Your task to perform on an android device: Empty the shopping cart on target. Search for "energizer triple a" on target, select the first entry, and add it to the cart. Image 0: 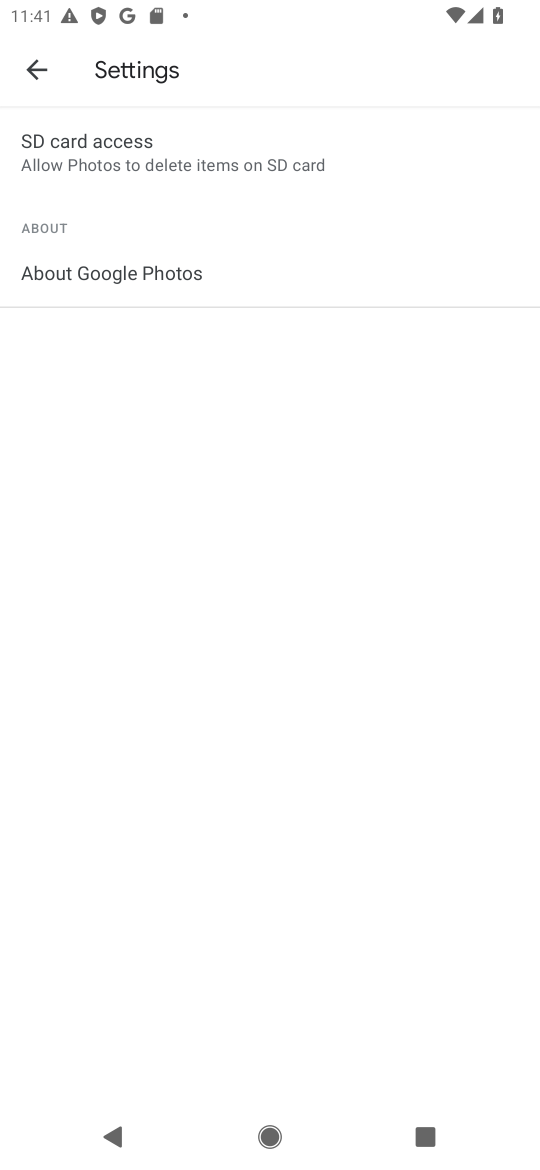
Step 0: press home button
Your task to perform on an android device: Empty the shopping cart on target. Search for "energizer triple a" on target, select the first entry, and add it to the cart. Image 1: 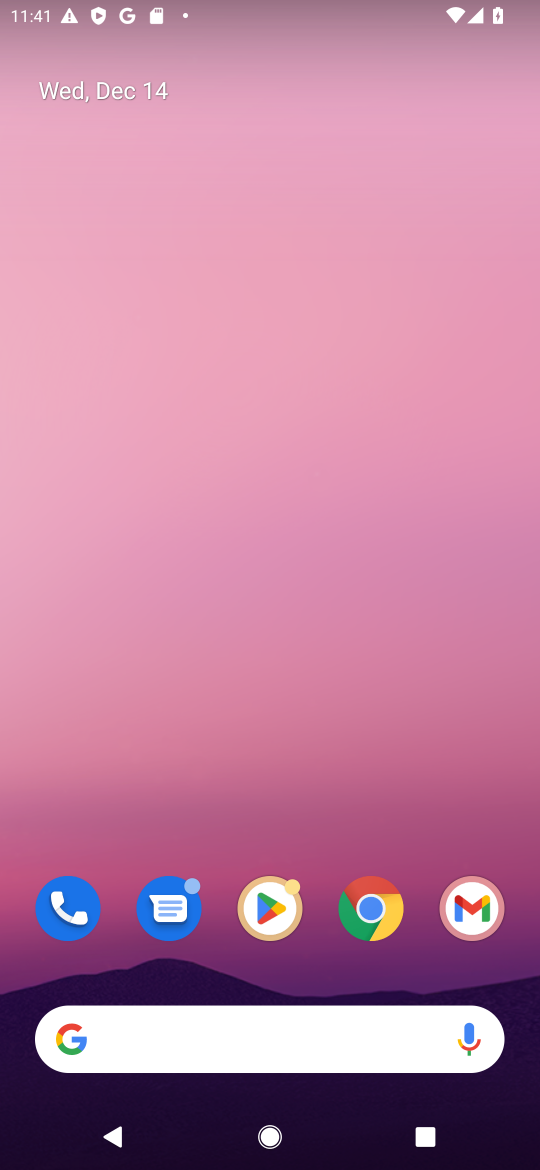
Step 1: click (374, 892)
Your task to perform on an android device: Empty the shopping cart on target. Search for "energizer triple a" on target, select the first entry, and add it to the cart. Image 2: 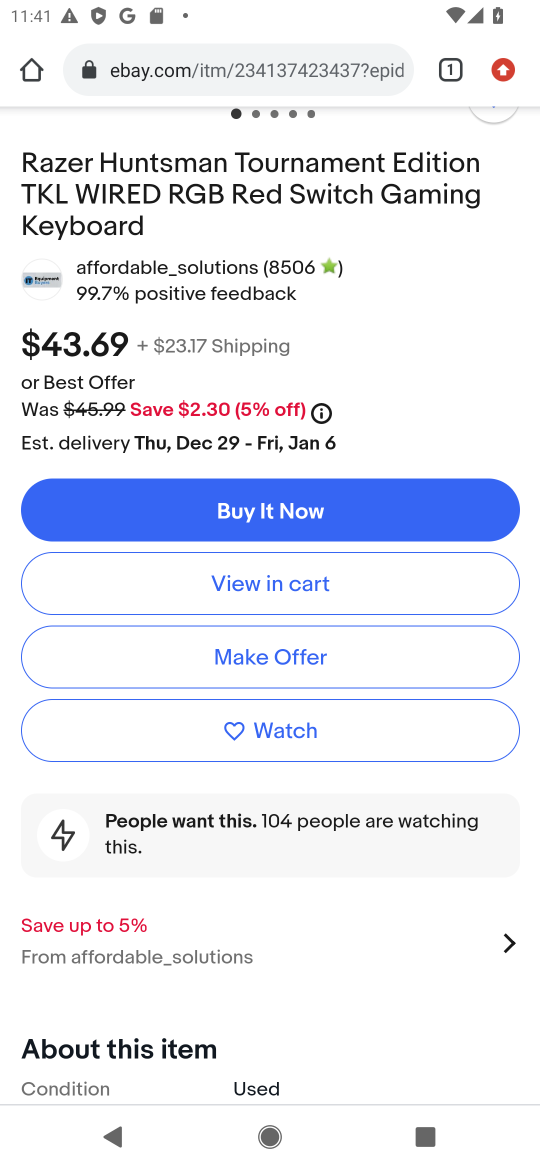
Step 2: click (197, 91)
Your task to perform on an android device: Empty the shopping cart on target. Search for "energizer triple a" on target, select the first entry, and add it to the cart. Image 3: 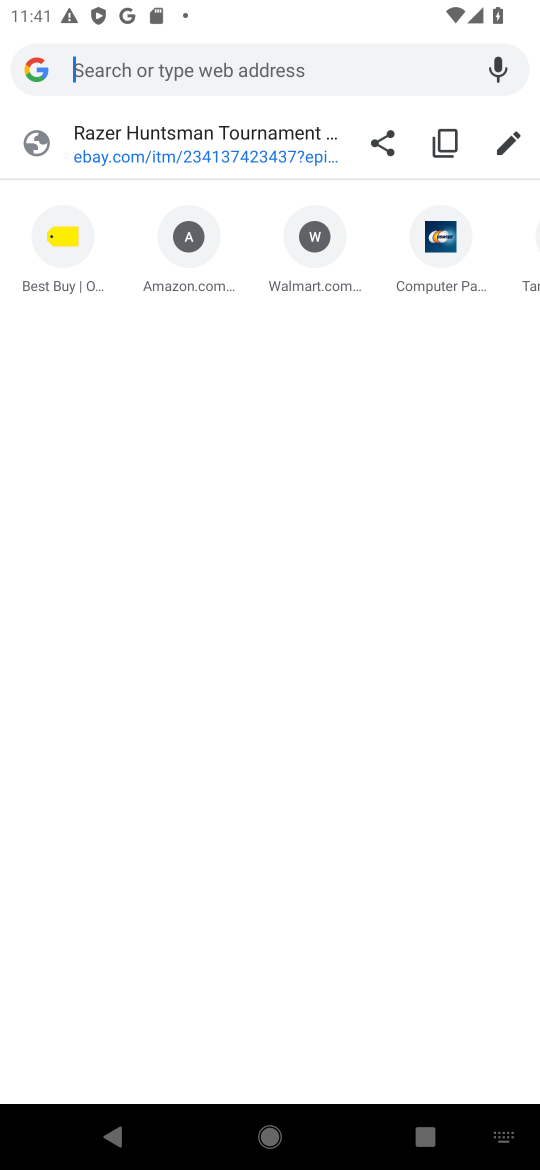
Step 3: type "target"
Your task to perform on an android device: Empty the shopping cart on target. Search for "energizer triple a" on target, select the first entry, and add it to the cart. Image 4: 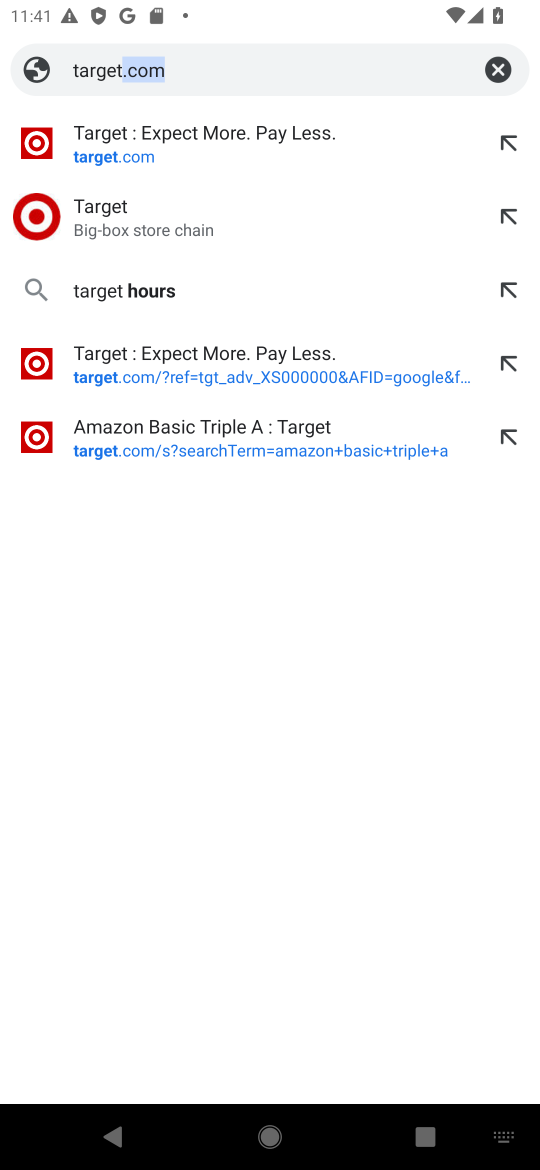
Step 4: click (127, 128)
Your task to perform on an android device: Empty the shopping cart on target. Search for "energizer triple a" on target, select the first entry, and add it to the cart. Image 5: 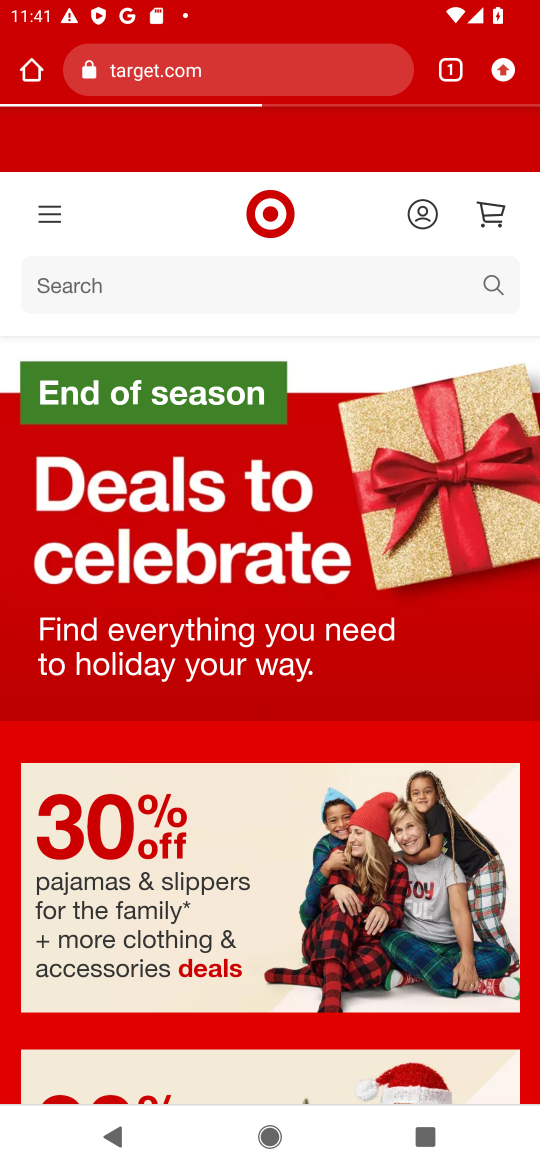
Step 5: drag from (287, 703) to (288, 516)
Your task to perform on an android device: Empty the shopping cart on target. Search for "energizer triple a" on target, select the first entry, and add it to the cart. Image 6: 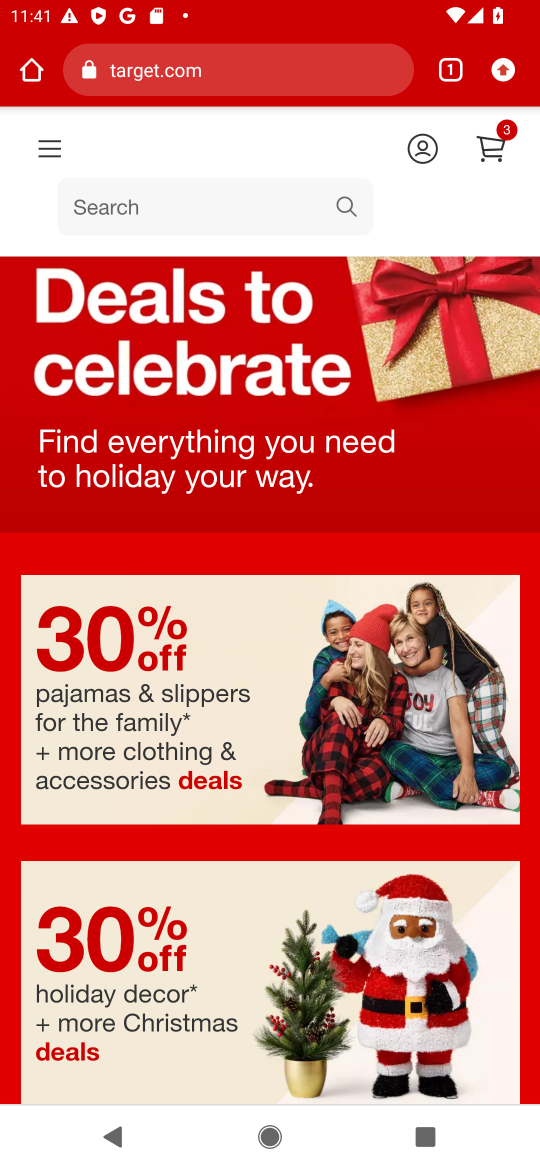
Step 6: drag from (138, 287) to (149, 809)
Your task to perform on an android device: Empty the shopping cart on target. Search for "energizer triple a" on target, select the first entry, and add it to the cart. Image 7: 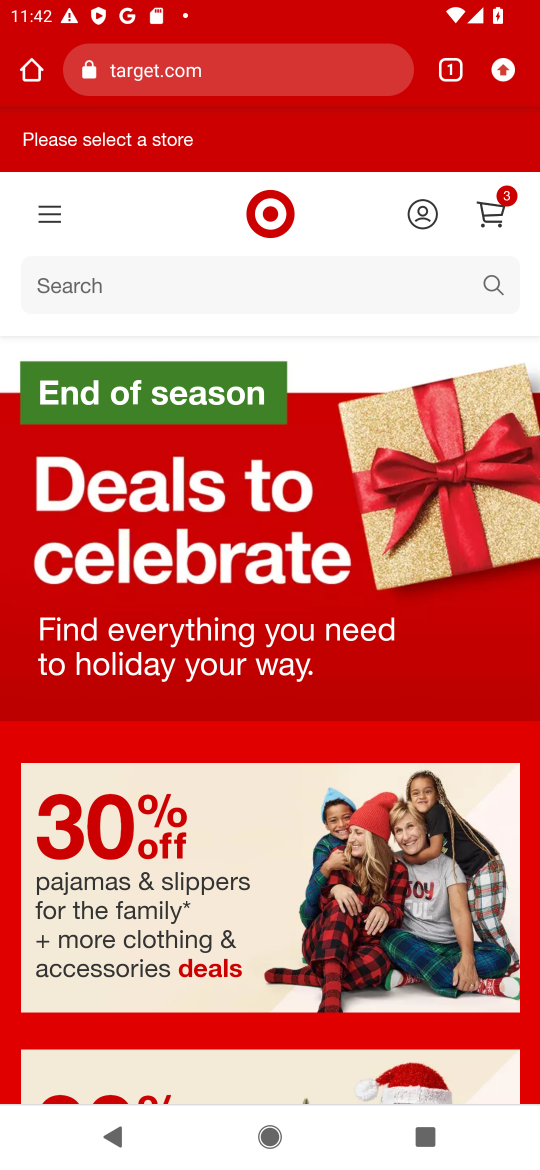
Step 7: click (56, 281)
Your task to perform on an android device: Empty the shopping cart on target. Search for "energizer triple a" on target, select the first entry, and add it to the cart. Image 8: 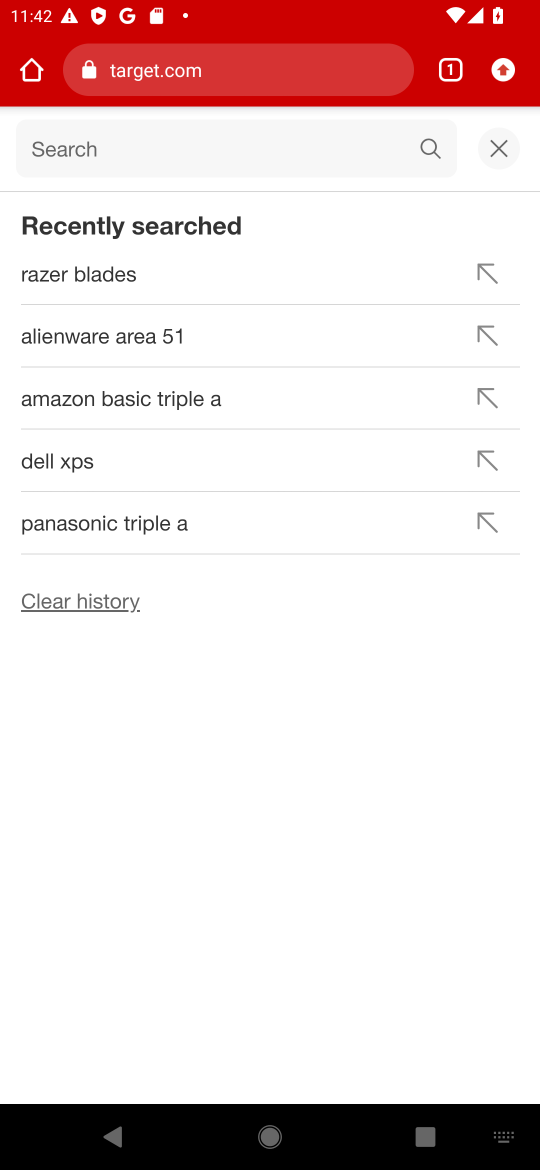
Step 8: type "target"
Your task to perform on an android device: Empty the shopping cart on target. Search for "energizer triple a" on target, select the first entry, and add it to the cart. Image 9: 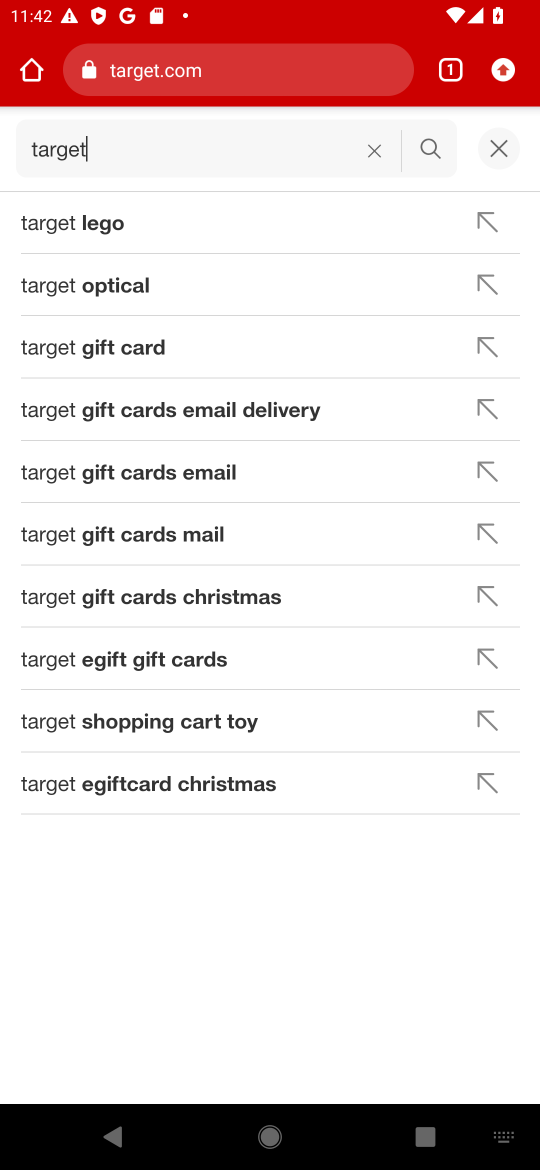
Step 9: click (370, 154)
Your task to perform on an android device: Empty the shopping cart on target. Search for "energizer triple a" on target, select the first entry, and add it to the cart. Image 10: 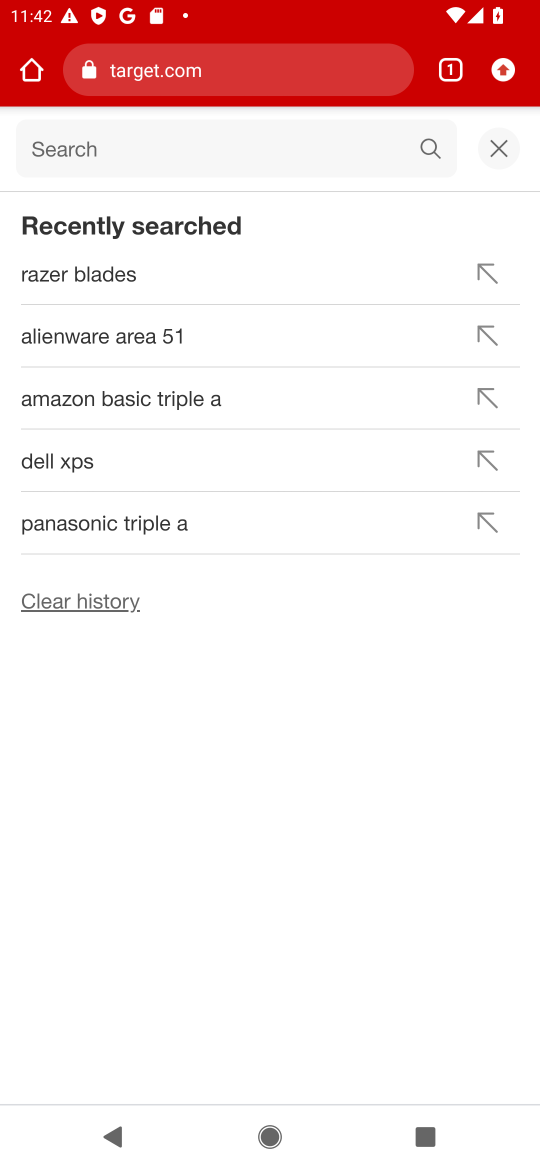
Step 10: type "energizer triple a"
Your task to perform on an android device: Empty the shopping cart on target. Search for "energizer triple a" on target, select the first entry, and add it to the cart. Image 11: 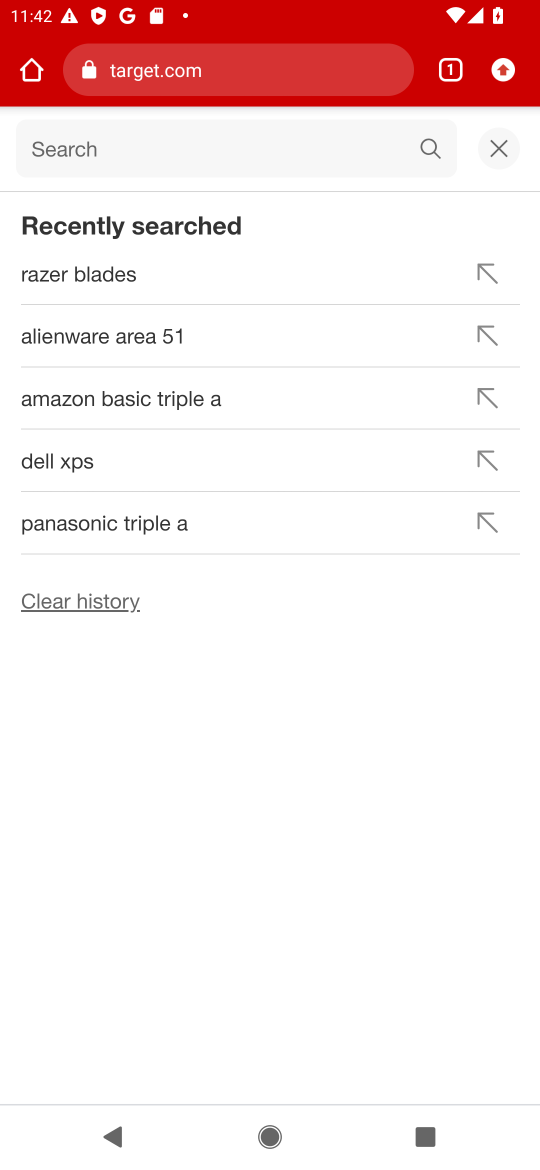
Step 11: click (96, 832)
Your task to perform on an android device: Empty the shopping cart on target. Search for "energizer triple a" on target, select the first entry, and add it to the cart. Image 12: 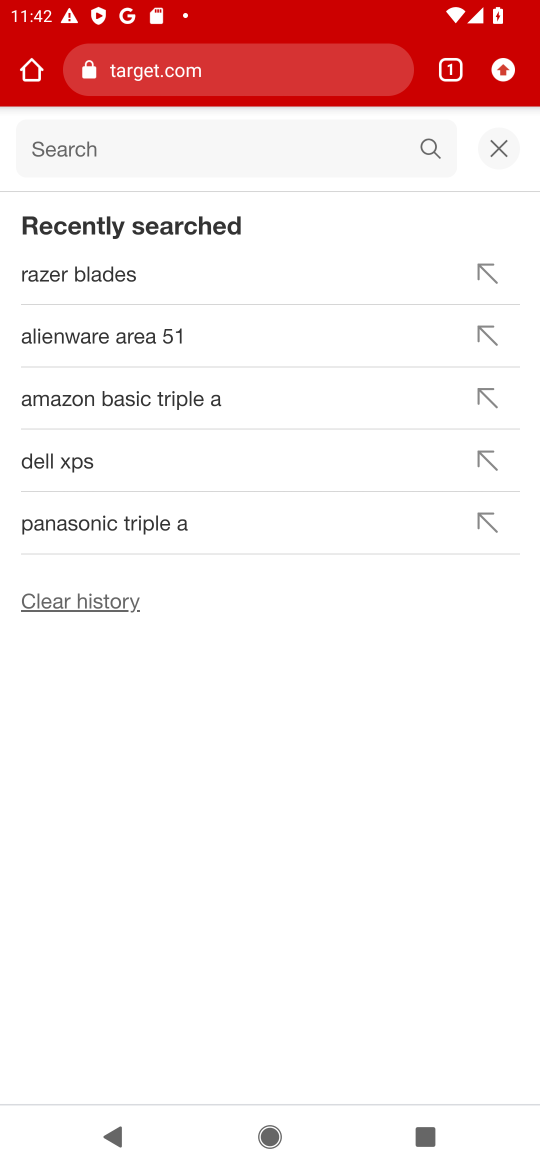
Step 12: click (200, 176)
Your task to perform on an android device: Empty the shopping cart on target. Search for "energizer triple a" on target, select the first entry, and add it to the cart. Image 13: 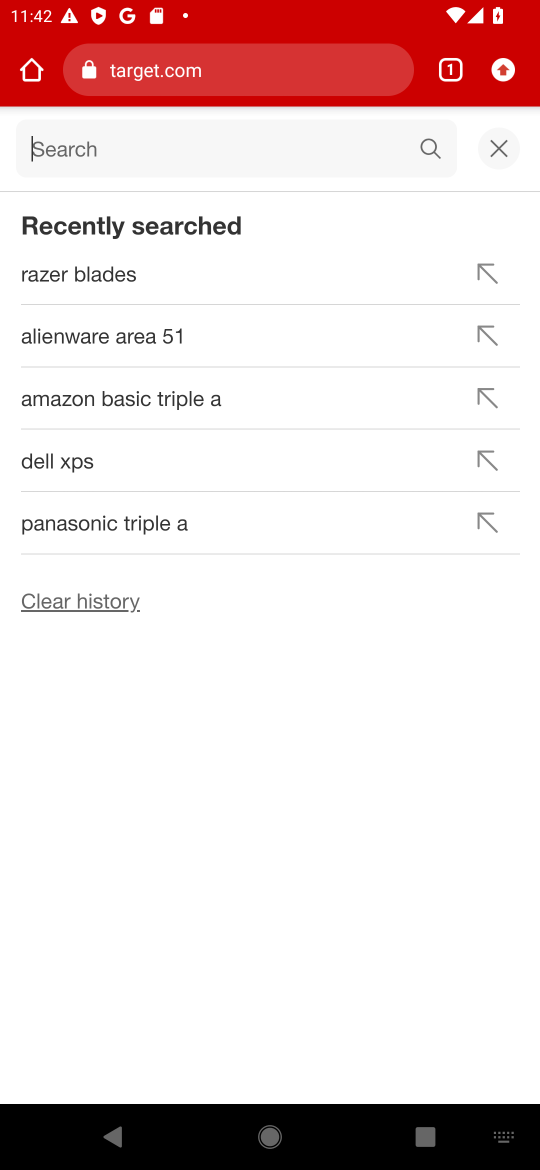
Step 13: type "energizer triple a"
Your task to perform on an android device: Empty the shopping cart on target. Search for "energizer triple a" on target, select the first entry, and add it to the cart. Image 14: 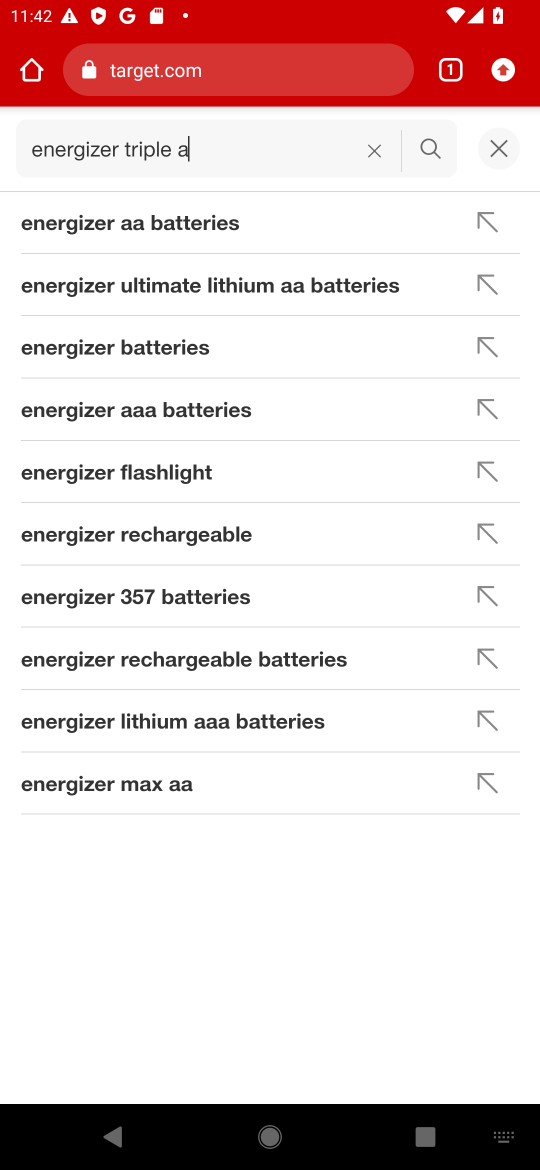
Step 14: click (202, 233)
Your task to perform on an android device: Empty the shopping cart on target. Search for "energizer triple a" on target, select the first entry, and add it to the cart. Image 15: 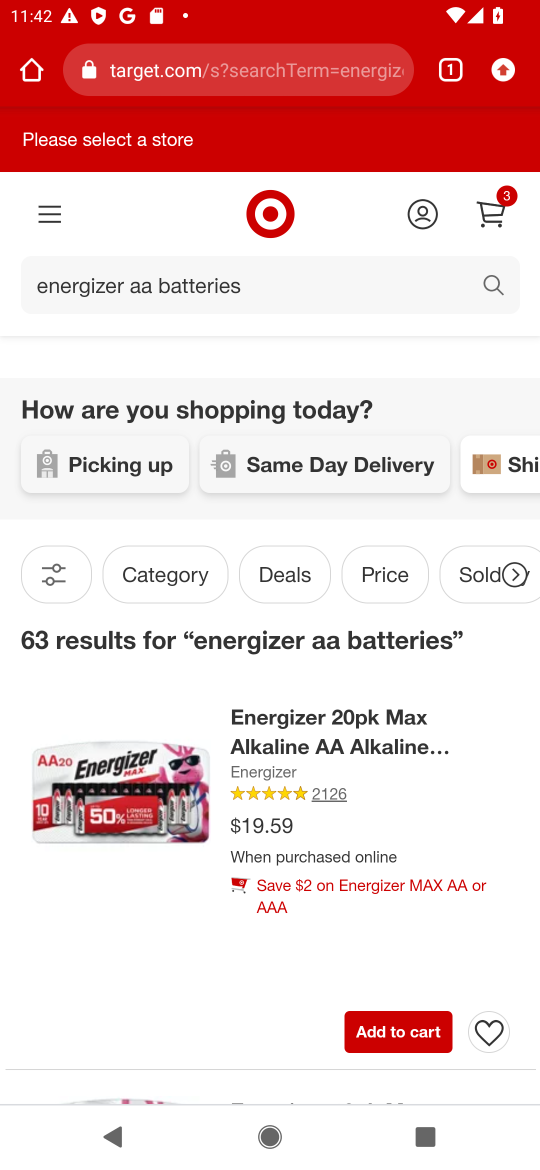
Step 15: click (391, 1020)
Your task to perform on an android device: Empty the shopping cart on target. Search for "energizer triple a" on target, select the first entry, and add it to the cart. Image 16: 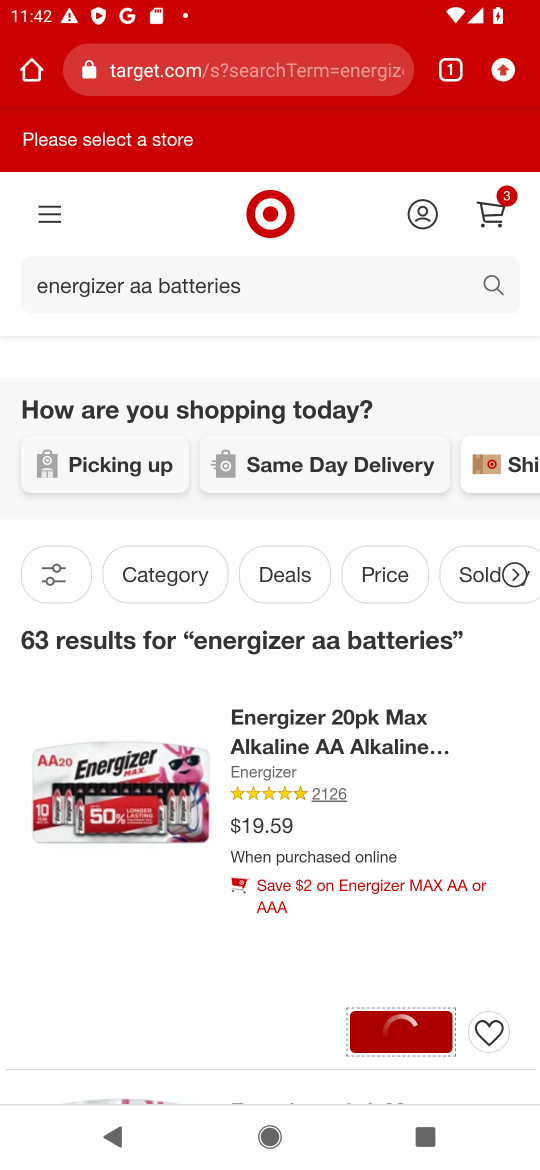
Step 16: task complete